Your task to perform on an android device: Open settings Image 0: 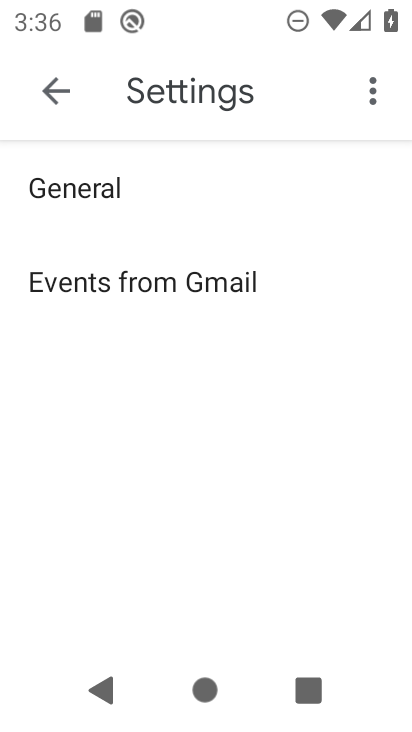
Step 0: press back button
Your task to perform on an android device: Open settings Image 1: 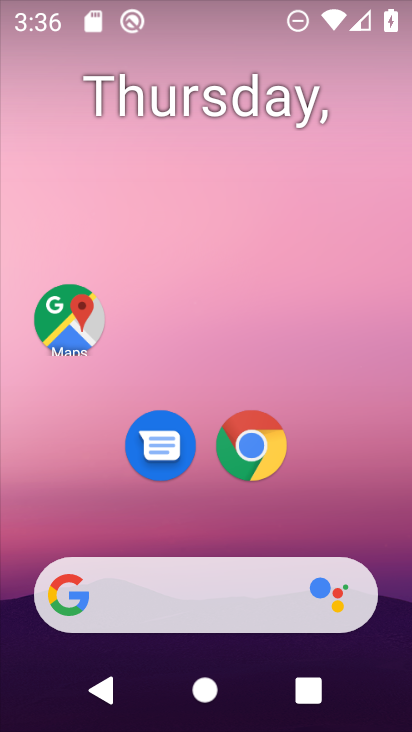
Step 1: drag from (322, 509) to (232, 59)
Your task to perform on an android device: Open settings Image 2: 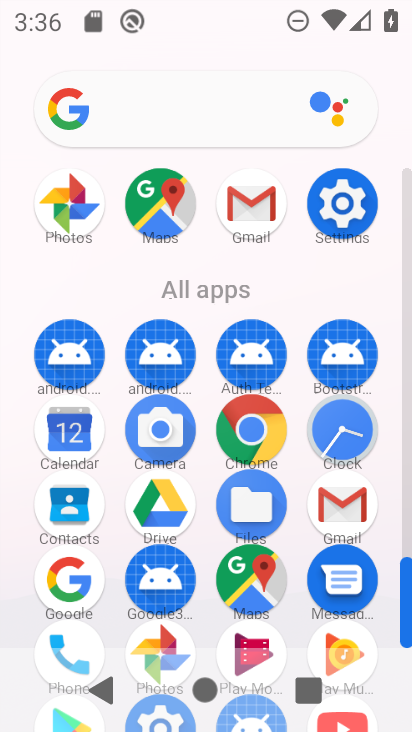
Step 2: click (341, 200)
Your task to perform on an android device: Open settings Image 3: 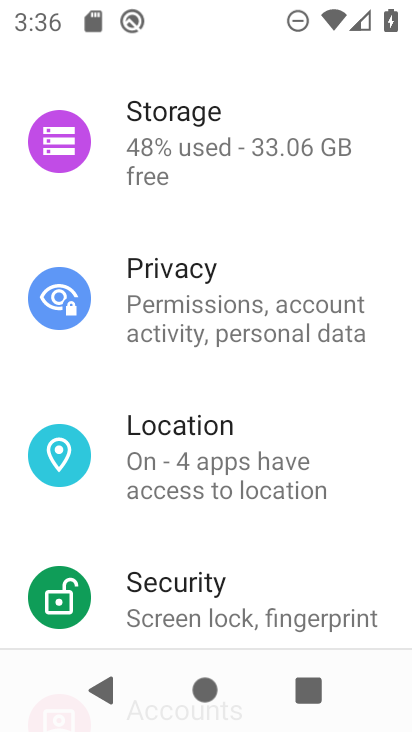
Step 3: task complete